Your task to perform on an android device: Do I have any events today? Image 0: 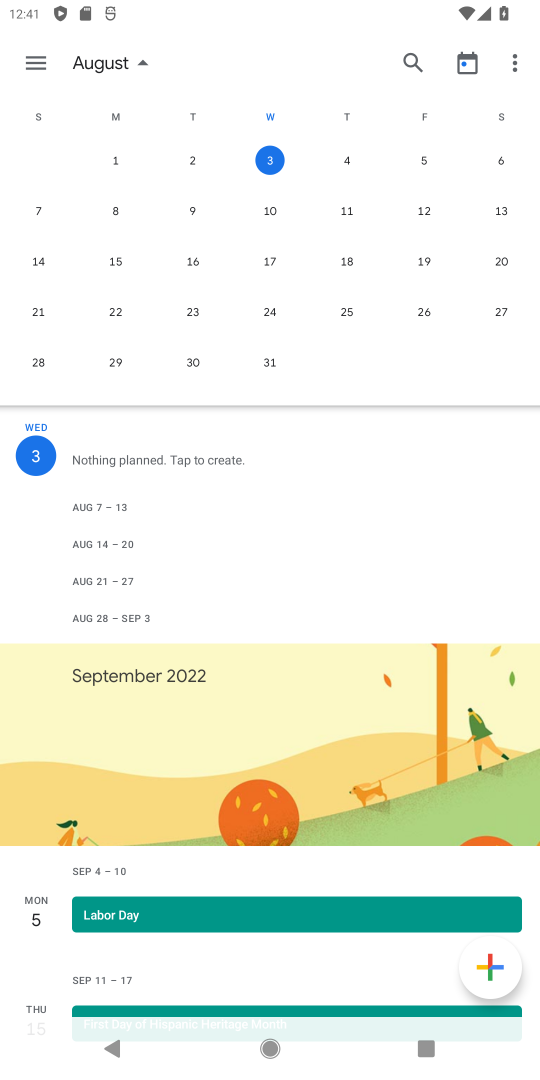
Step 0: click (279, 170)
Your task to perform on an android device: Do I have any events today? Image 1: 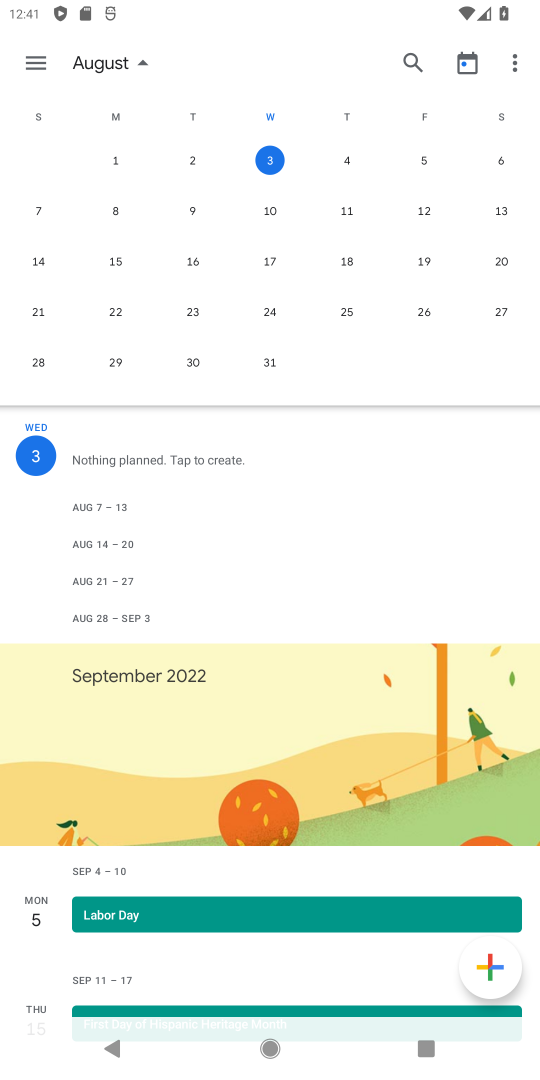
Step 1: drag from (213, 574) to (208, 392)
Your task to perform on an android device: Do I have any events today? Image 2: 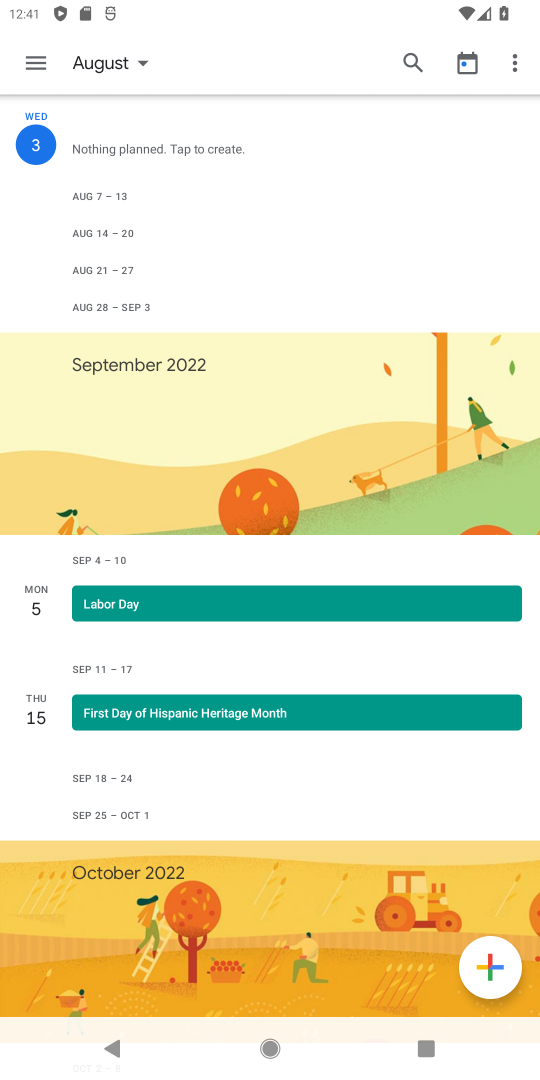
Step 2: drag from (219, 373) to (236, 731)
Your task to perform on an android device: Do I have any events today? Image 3: 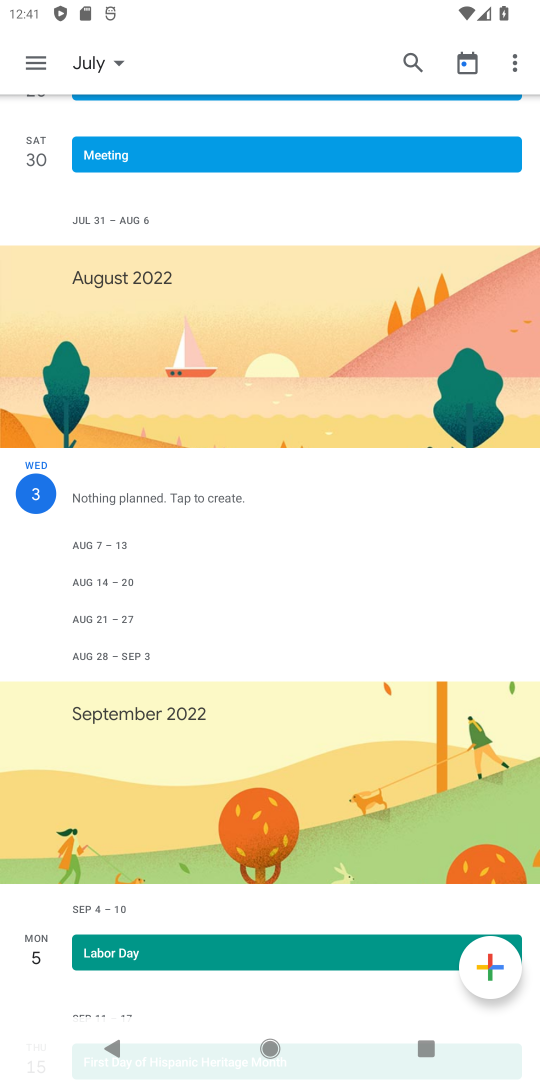
Step 3: click (81, 60)
Your task to perform on an android device: Do I have any events today? Image 4: 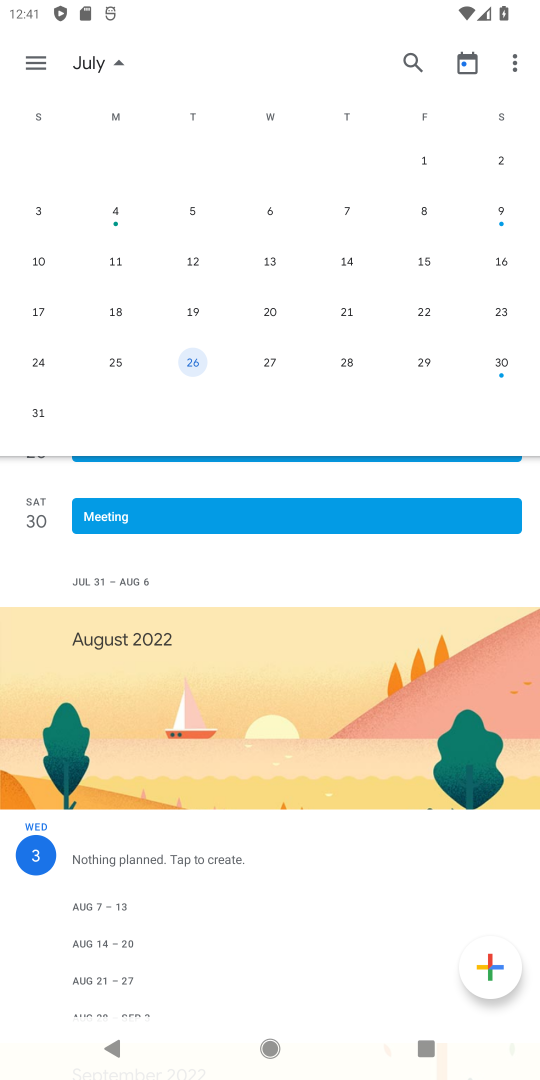
Step 4: click (102, 59)
Your task to perform on an android device: Do I have any events today? Image 5: 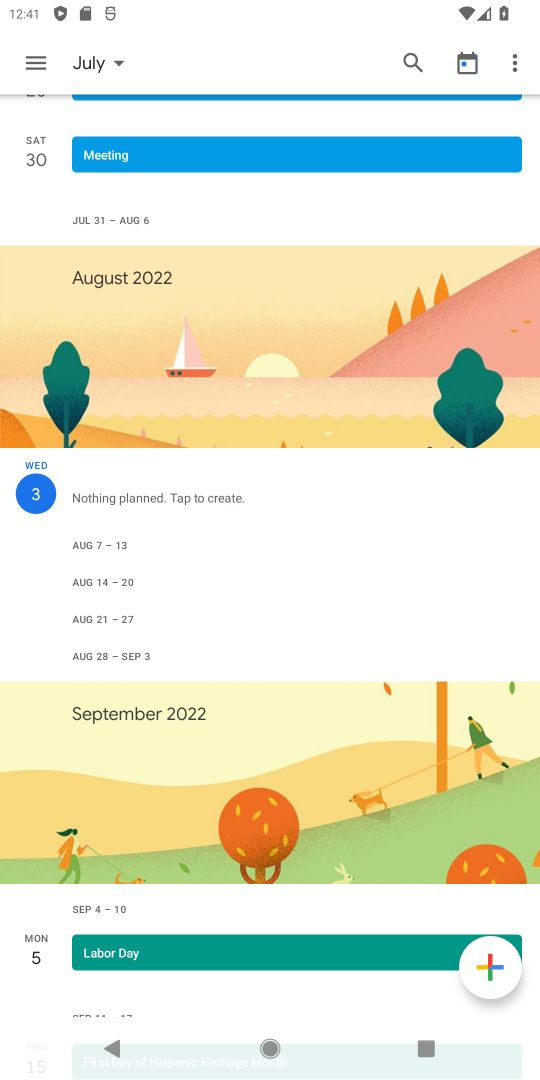
Step 5: click (101, 60)
Your task to perform on an android device: Do I have any events today? Image 6: 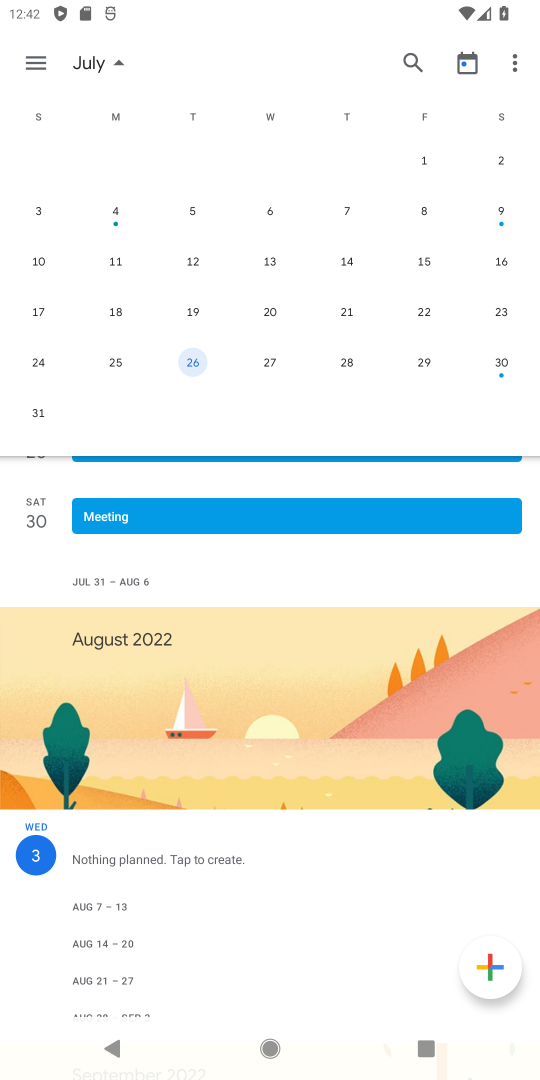
Step 6: click (464, 67)
Your task to perform on an android device: Do I have any events today? Image 7: 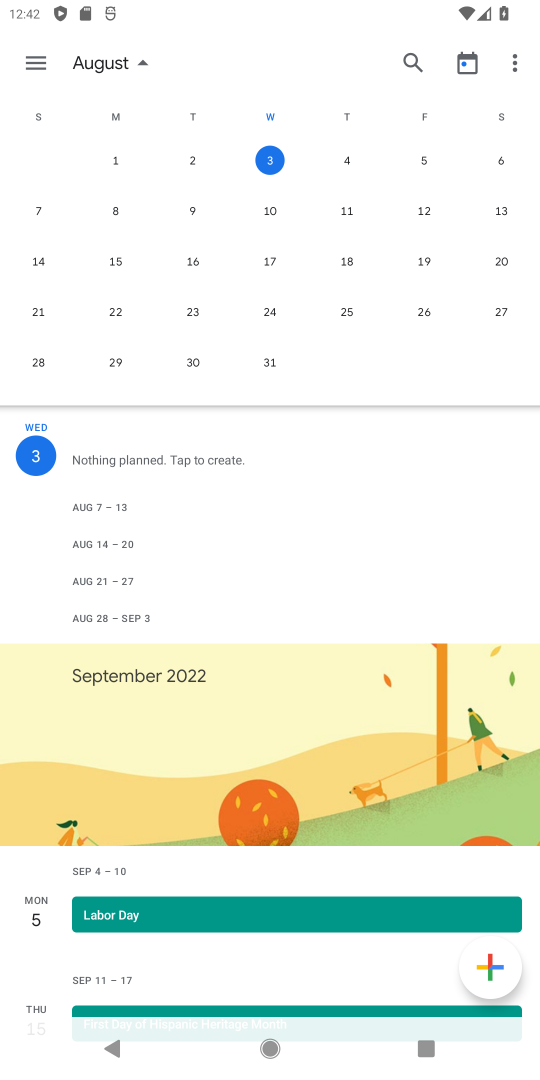
Step 7: click (266, 162)
Your task to perform on an android device: Do I have any events today? Image 8: 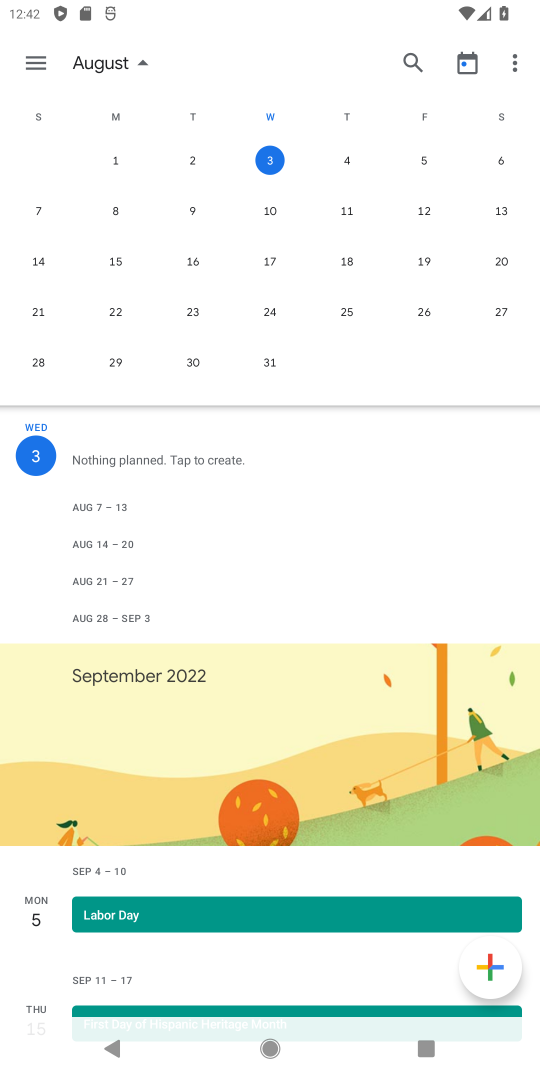
Step 8: drag from (257, 869) to (295, 588)
Your task to perform on an android device: Do I have any events today? Image 9: 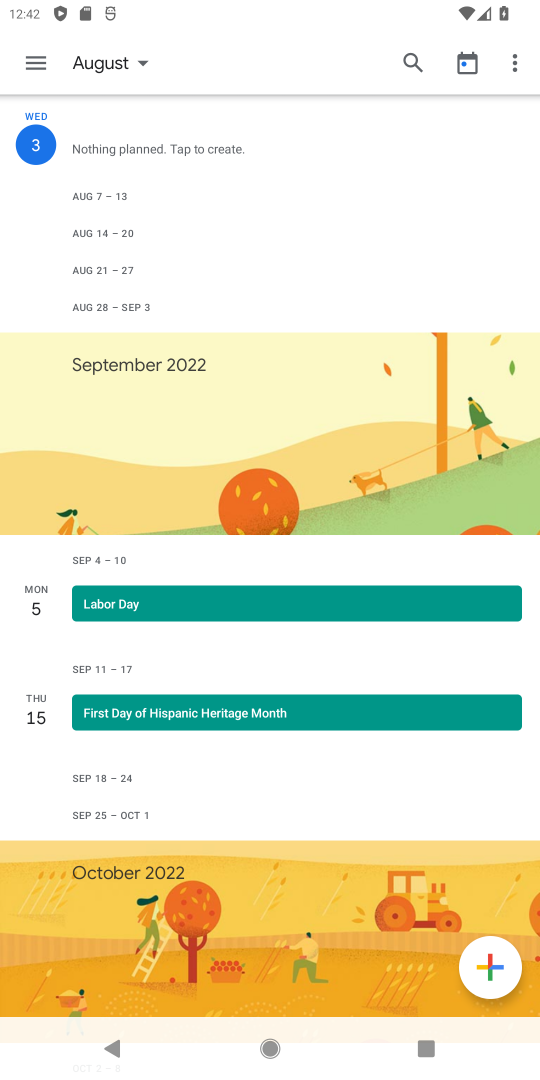
Step 9: drag from (222, 618) to (265, 279)
Your task to perform on an android device: Do I have any events today? Image 10: 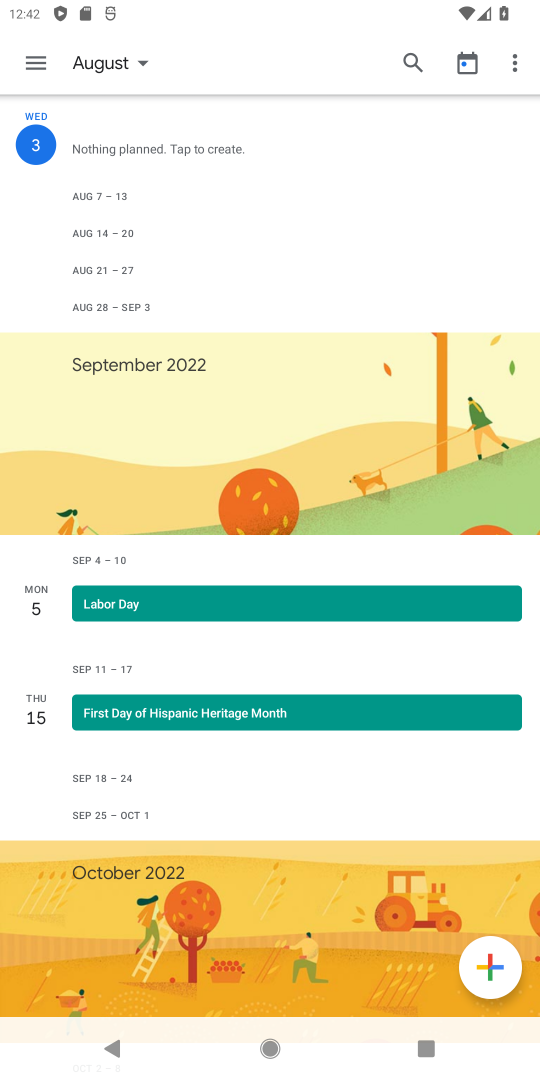
Step 10: drag from (231, 764) to (239, 394)
Your task to perform on an android device: Do I have any events today? Image 11: 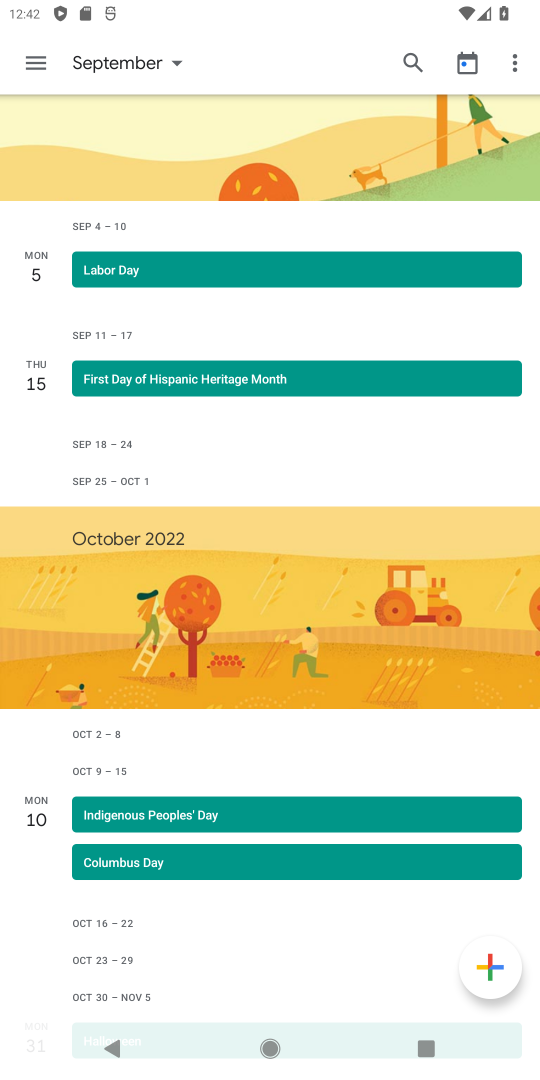
Step 11: drag from (292, 351) to (282, 1007)
Your task to perform on an android device: Do I have any events today? Image 12: 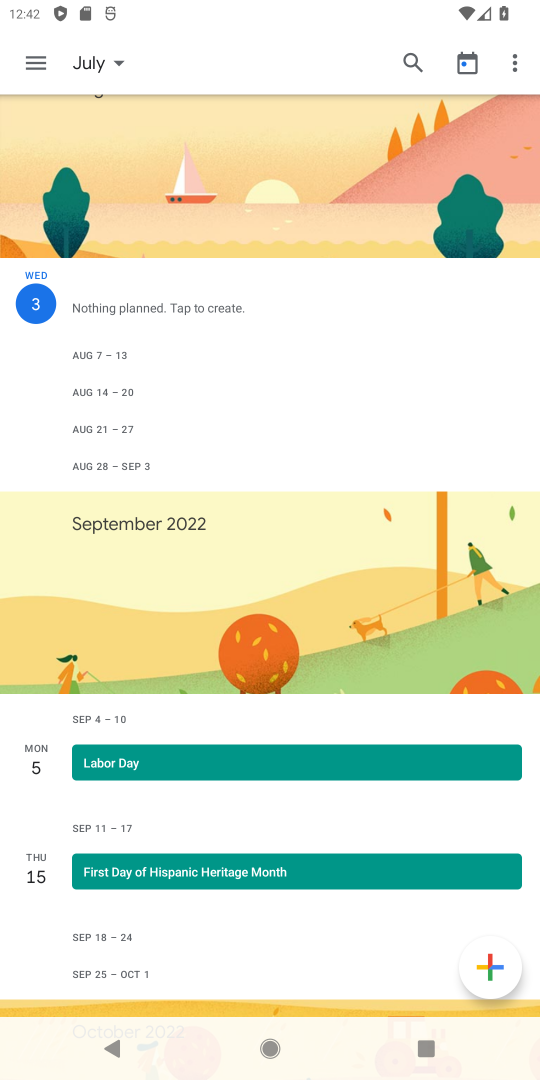
Step 12: drag from (225, 322) to (253, 1016)
Your task to perform on an android device: Do I have any events today? Image 13: 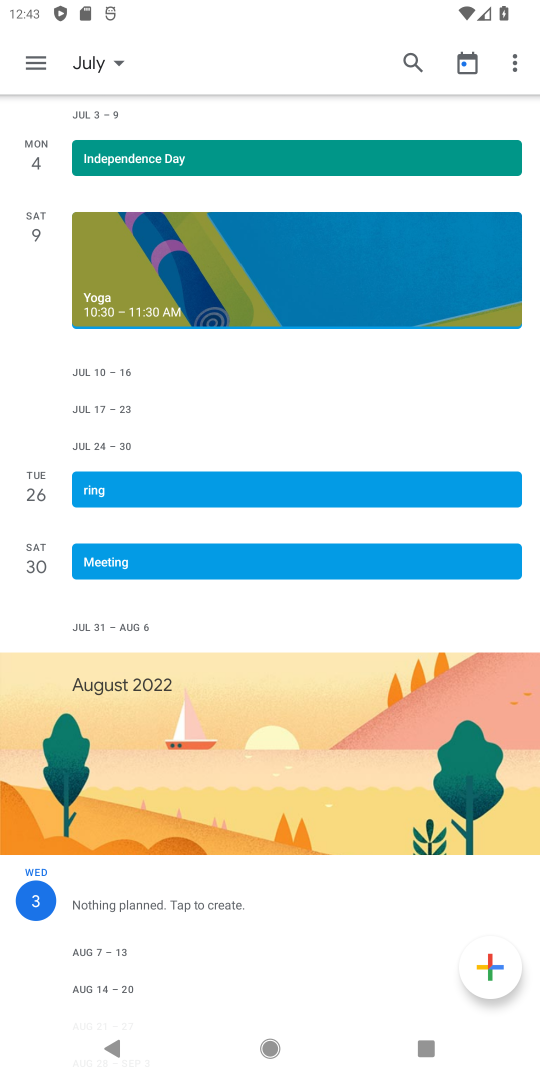
Step 13: click (463, 49)
Your task to perform on an android device: Do I have any events today? Image 14: 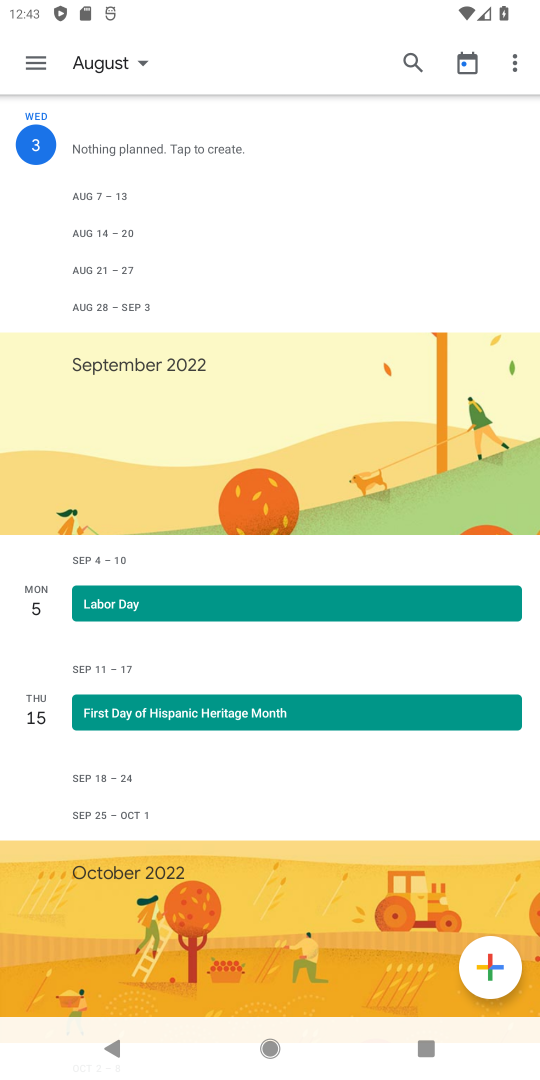
Step 14: task complete